Your task to perform on an android device: change the clock style Image 0: 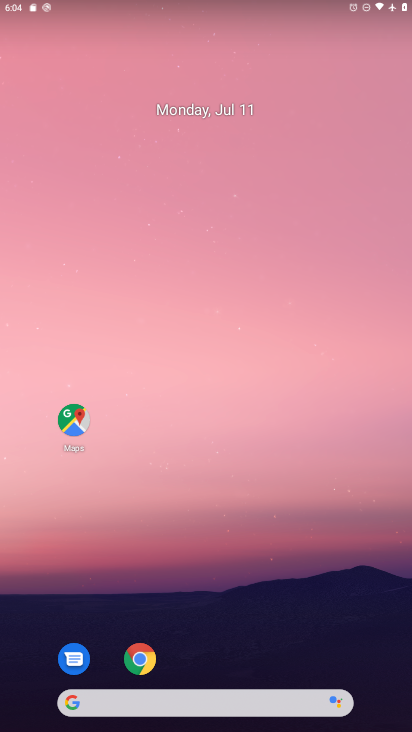
Step 0: drag from (353, 641) to (326, 112)
Your task to perform on an android device: change the clock style Image 1: 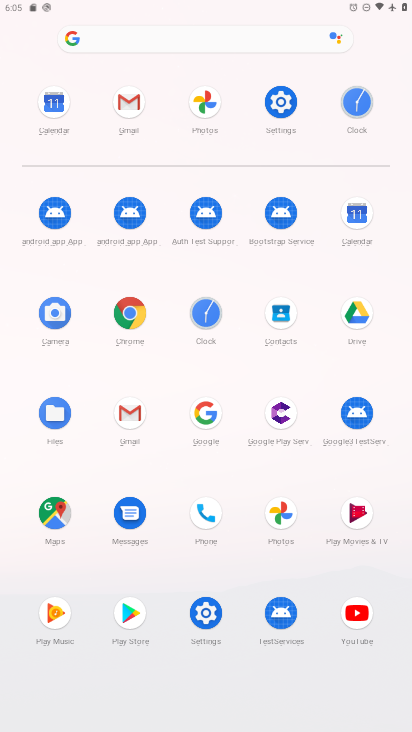
Step 1: click (207, 315)
Your task to perform on an android device: change the clock style Image 2: 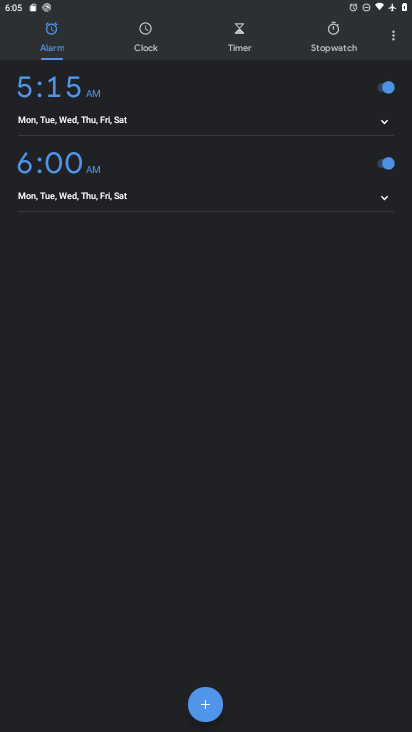
Step 2: click (393, 40)
Your task to perform on an android device: change the clock style Image 3: 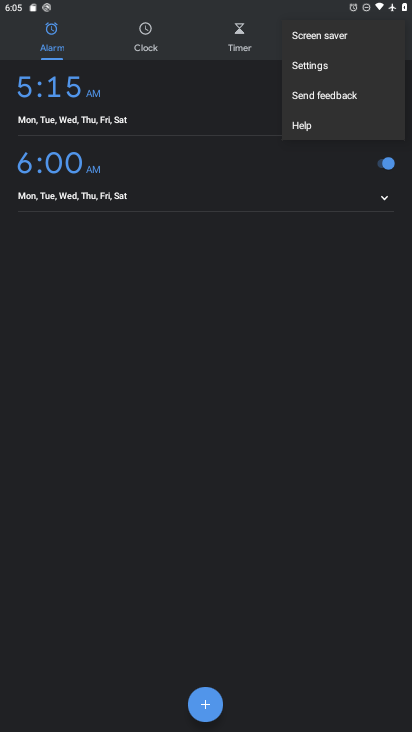
Step 3: click (310, 63)
Your task to perform on an android device: change the clock style Image 4: 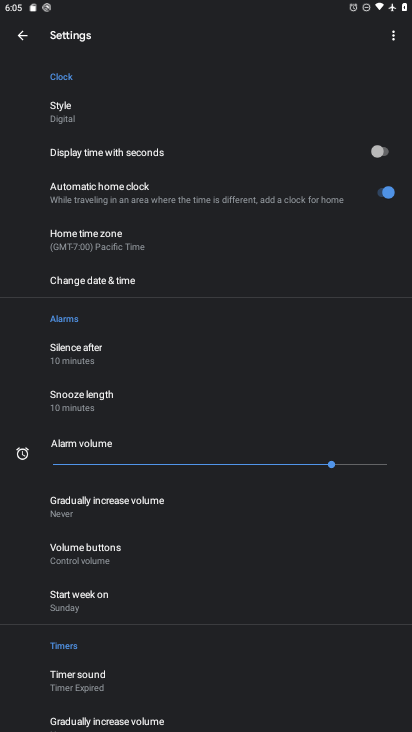
Step 4: click (57, 107)
Your task to perform on an android device: change the clock style Image 5: 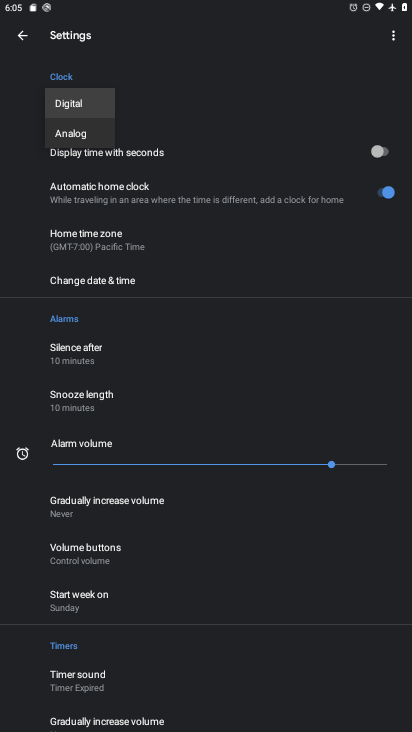
Step 5: click (72, 129)
Your task to perform on an android device: change the clock style Image 6: 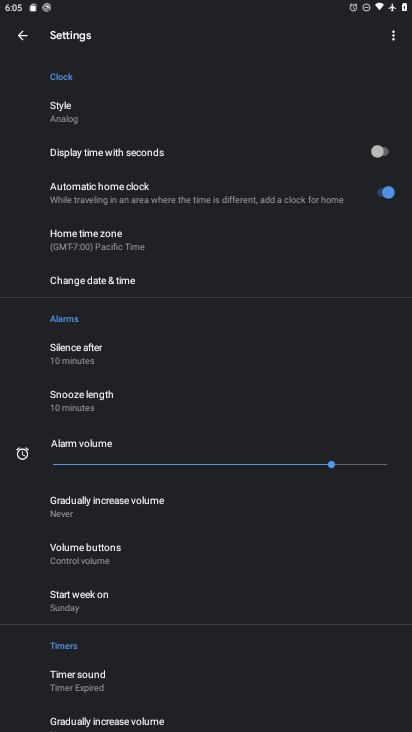
Step 6: task complete